Your task to perform on an android device: Go to wifi settings Image 0: 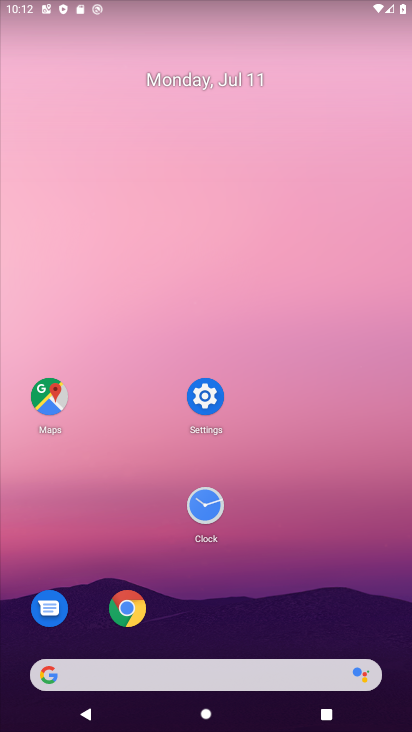
Step 0: click (202, 398)
Your task to perform on an android device: Go to wifi settings Image 1: 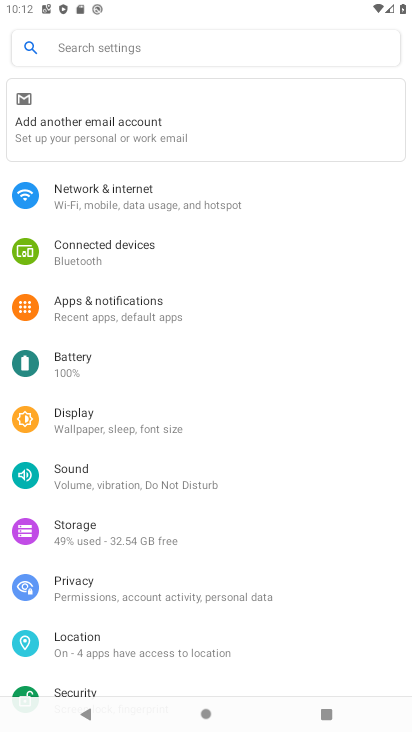
Step 1: click (112, 202)
Your task to perform on an android device: Go to wifi settings Image 2: 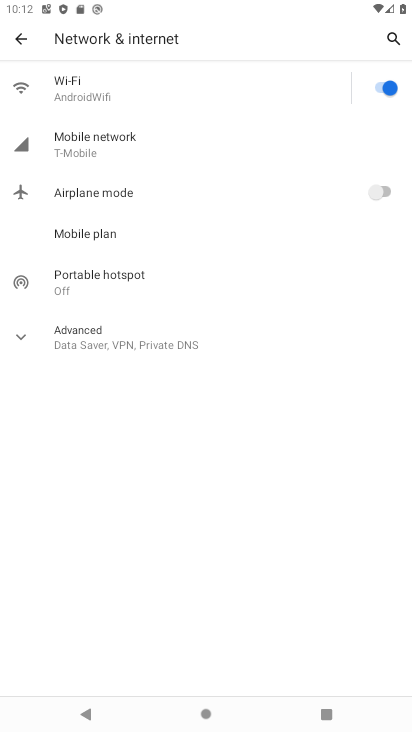
Step 2: click (214, 90)
Your task to perform on an android device: Go to wifi settings Image 3: 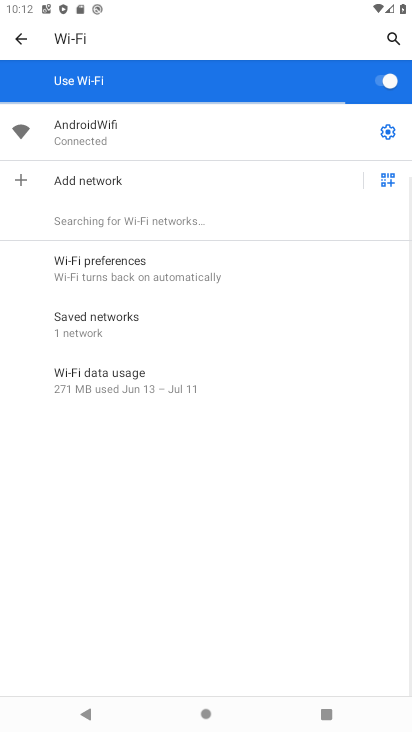
Step 3: click (385, 136)
Your task to perform on an android device: Go to wifi settings Image 4: 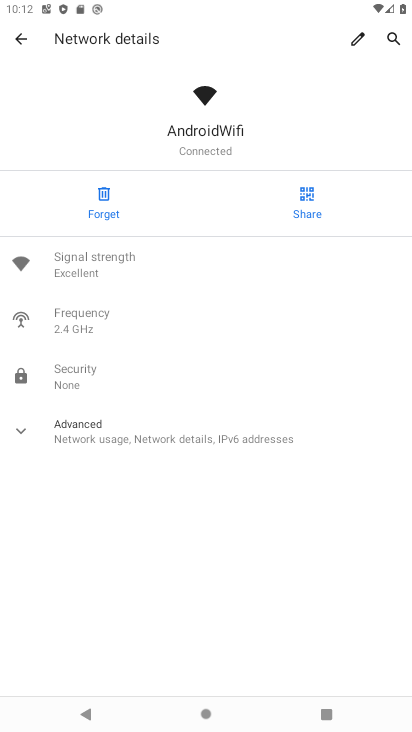
Step 4: task complete